Your task to perform on an android device: Open calendar and show me the second week of next month Image 0: 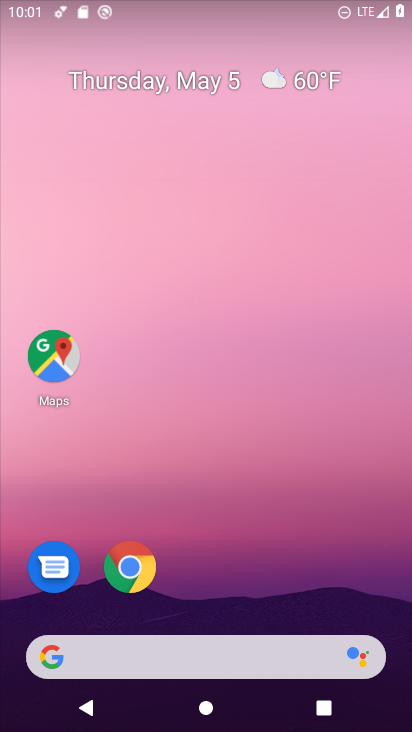
Step 0: drag from (222, 730) to (210, 222)
Your task to perform on an android device: Open calendar and show me the second week of next month Image 1: 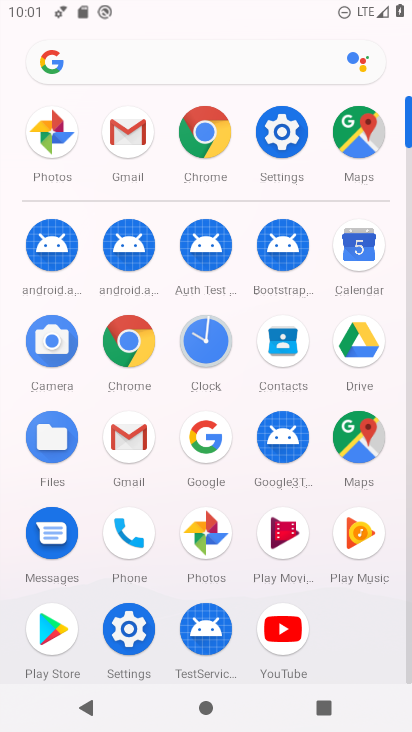
Step 1: click (355, 248)
Your task to perform on an android device: Open calendar and show me the second week of next month Image 2: 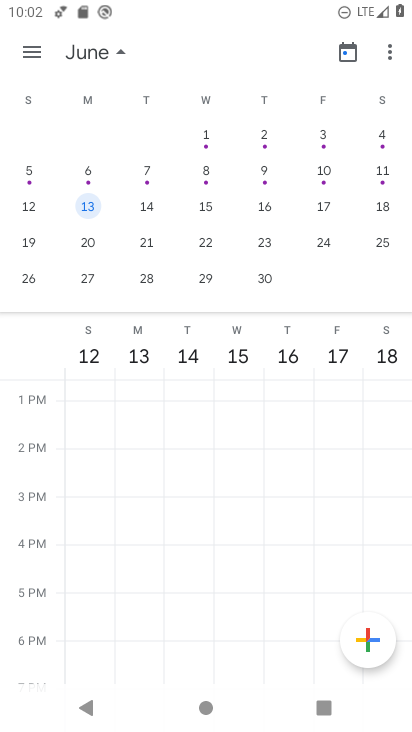
Step 2: click (87, 205)
Your task to perform on an android device: Open calendar and show me the second week of next month Image 3: 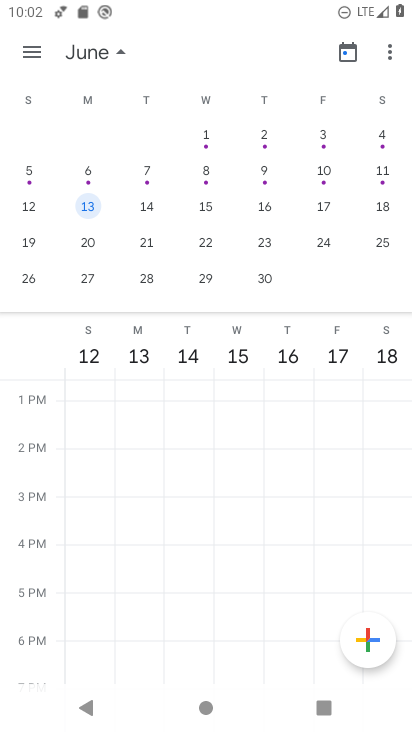
Step 3: task complete